Your task to perform on an android device: change the clock display to analog Image 0: 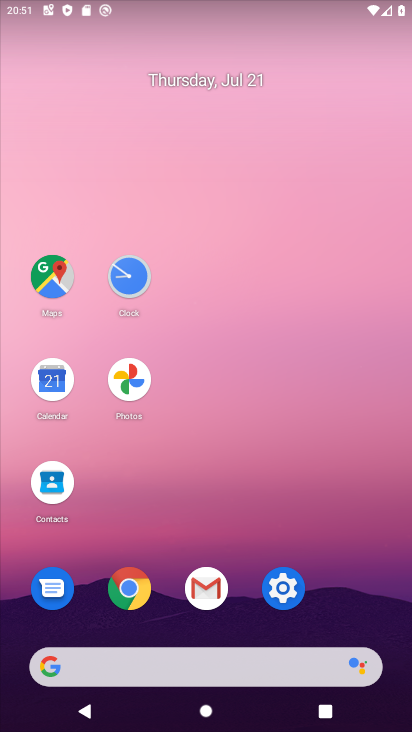
Step 0: click (131, 275)
Your task to perform on an android device: change the clock display to analog Image 1: 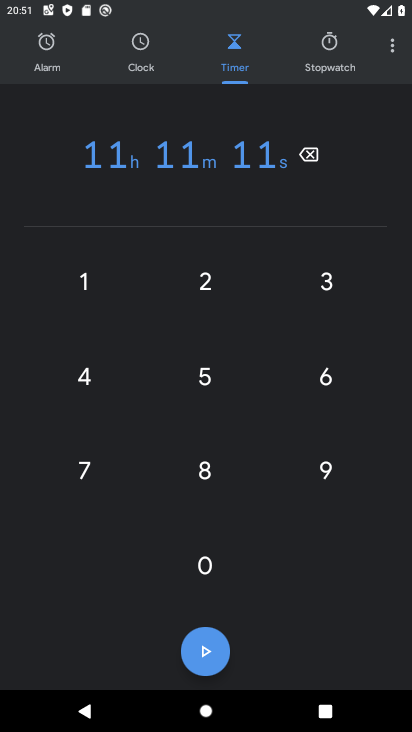
Step 1: click (393, 46)
Your task to perform on an android device: change the clock display to analog Image 2: 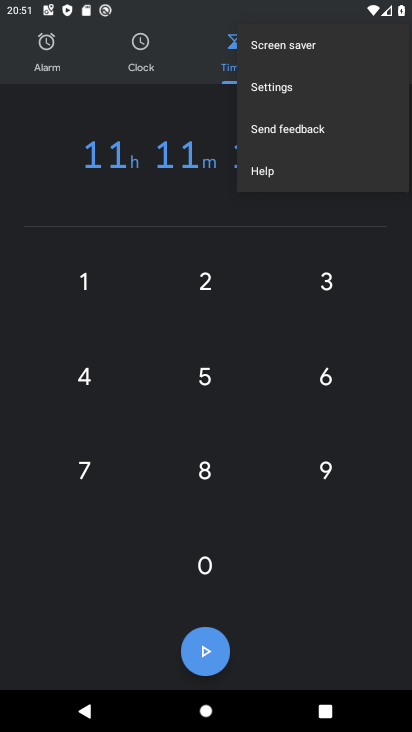
Step 2: click (282, 88)
Your task to perform on an android device: change the clock display to analog Image 3: 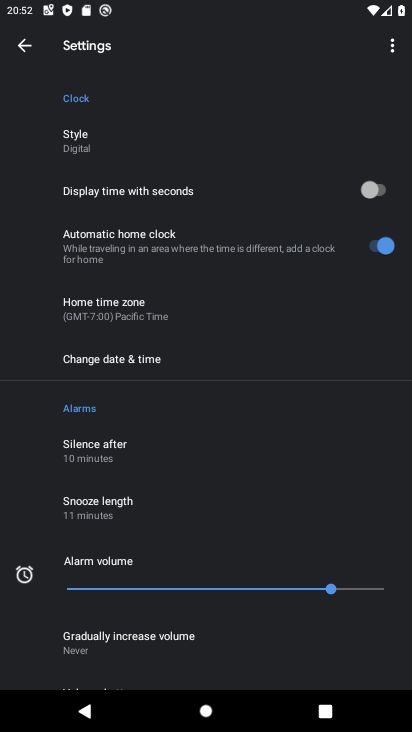
Step 3: click (79, 133)
Your task to perform on an android device: change the clock display to analog Image 4: 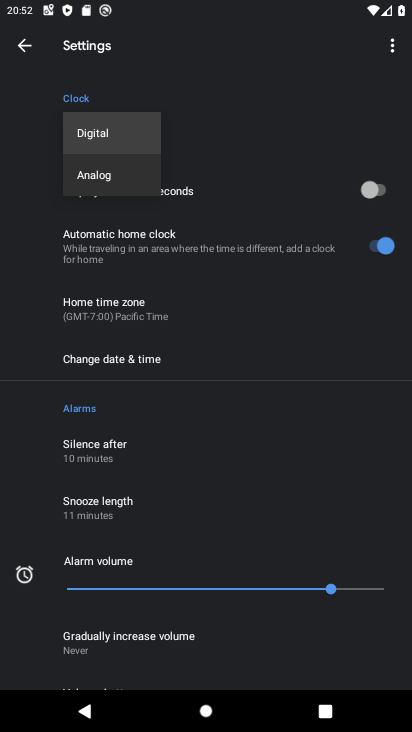
Step 4: click (89, 176)
Your task to perform on an android device: change the clock display to analog Image 5: 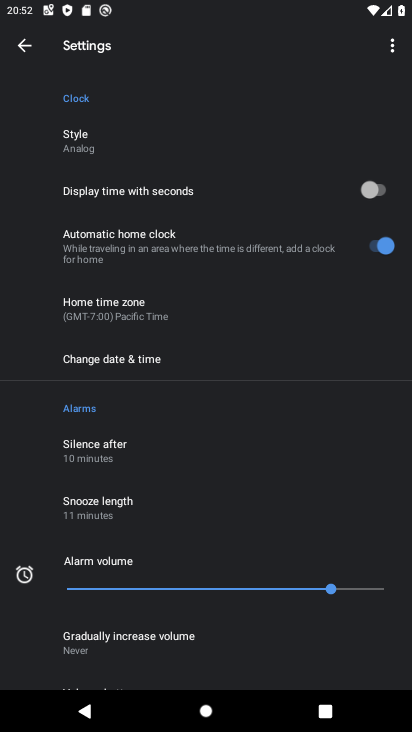
Step 5: task complete